Your task to perform on an android device: Show me the alarms in the clock app Image 0: 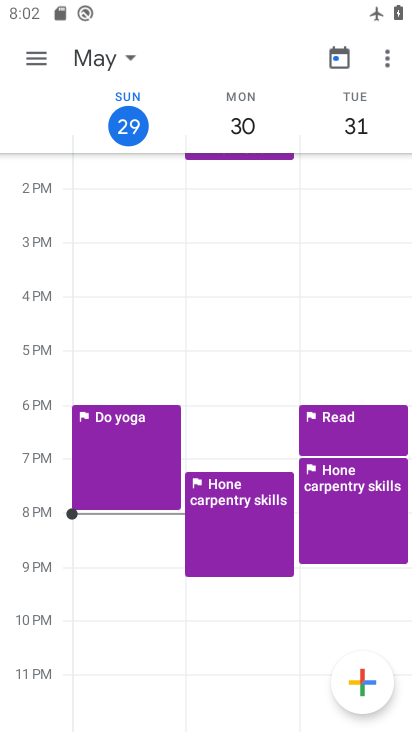
Step 0: press home button
Your task to perform on an android device: Show me the alarms in the clock app Image 1: 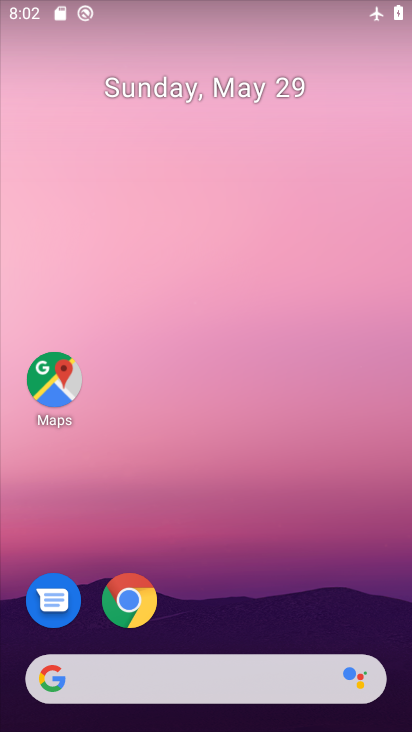
Step 1: drag from (204, 633) to (206, 228)
Your task to perform on an android device: Show me the alarms in the clock app Image 2: 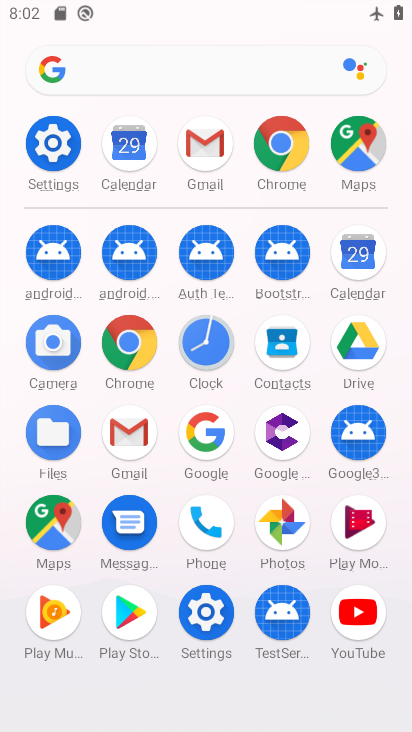
Step 2: click (208, 358)
Your task to perform on an android device: Show me the alarms in the clock app Image 3: 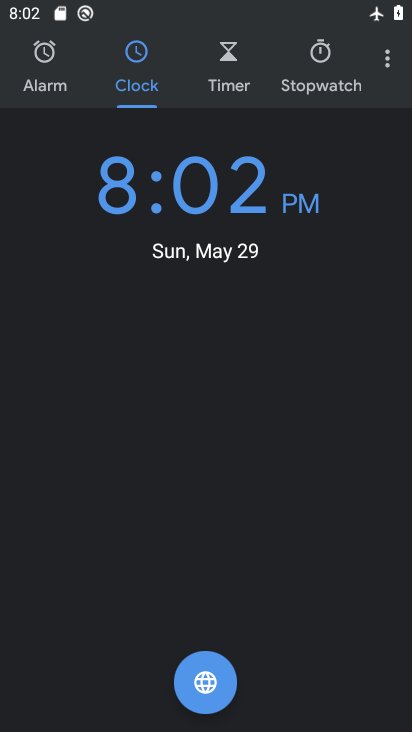
Step 3: click (40, 71)
Your task to perform on an android device: Show me the alarms in the clock app Image 4: 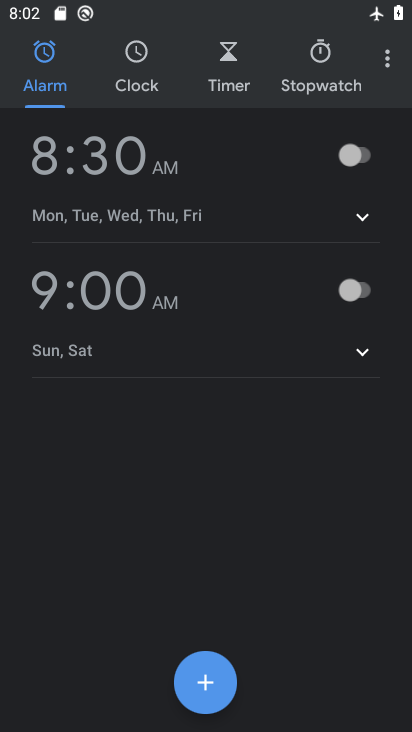
Step 4: task complete